Your task to perform on an android device: set an alarm Image 0: 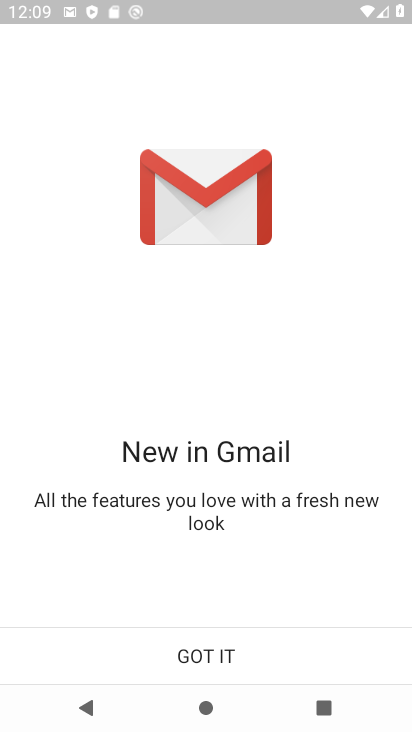
Step 0: press home button
Your task to perform on an android device: set an alarm Image 1: 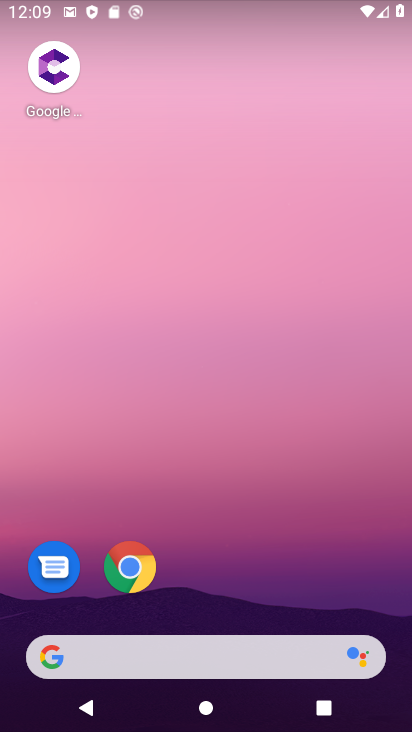
Step 1: drag from (174, 639) to (153, 117)
Your task to perform on an android device: set an alarm Image 2: 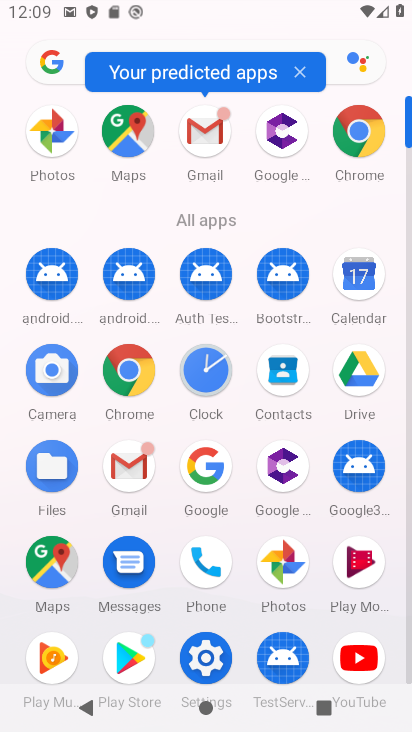
Step 2: click (199, 373)
Your task to perform on an android device: set an alarm Image 3: 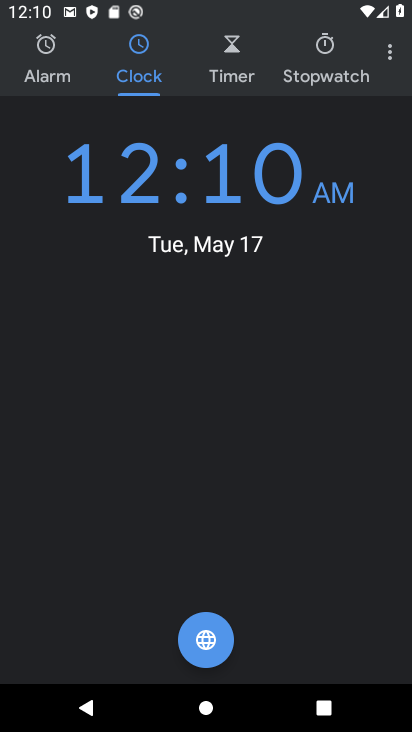
Step 3: click (65, 71)
Your task to perform on an android device: set an alarm Image 4: 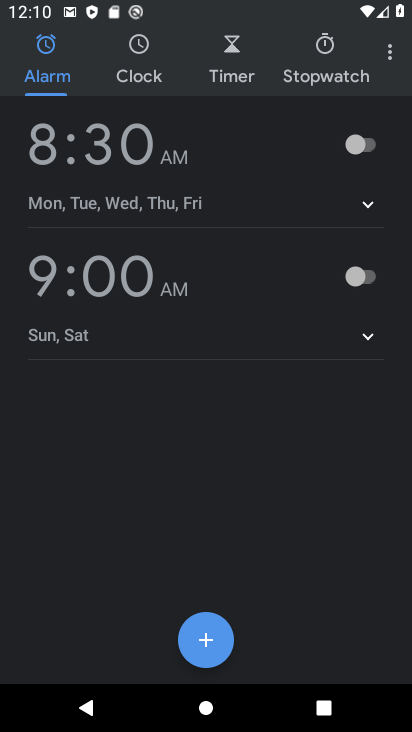
Step 4: click (206, 638)
Your task to perform on an android device: set an alarm Image 5: 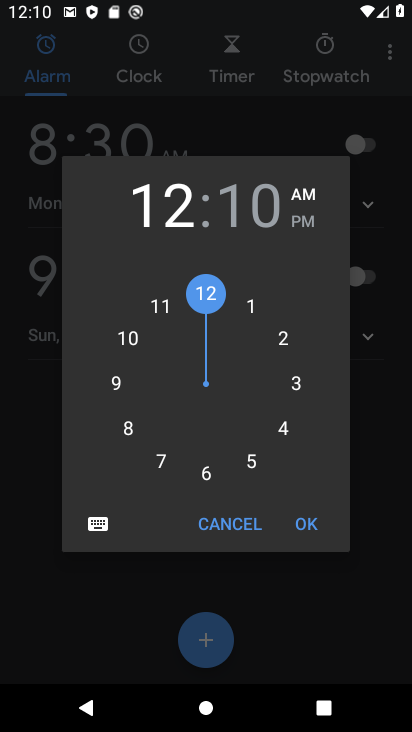
Step 5: click (214, 483)
Your task to perform on an android device: set an alarm Image 6: 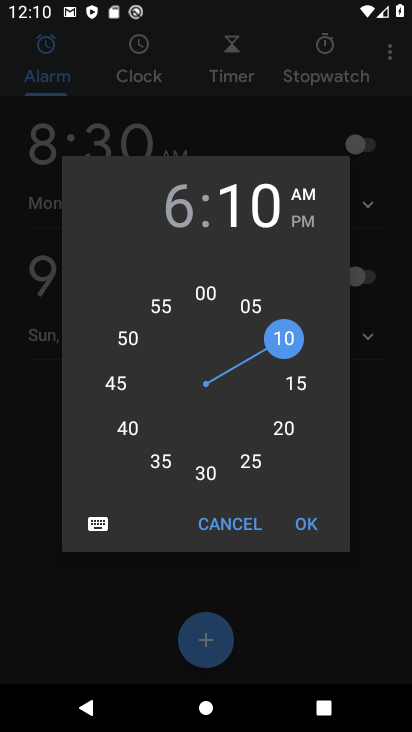
Step 6: click (320, 527)
Your task to perform on an android device: set an alarm Image 7: 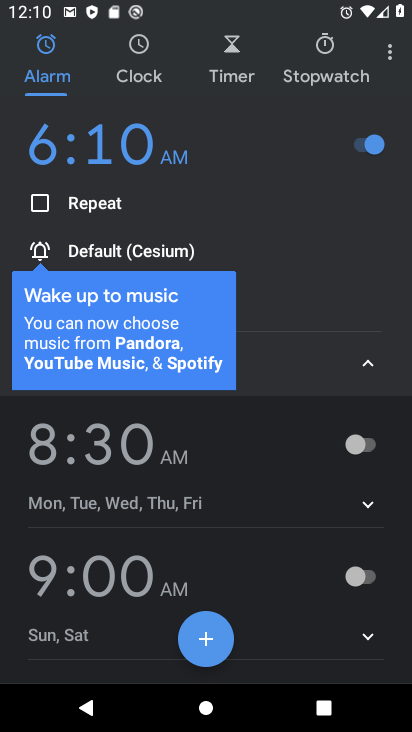
Step 7: task complete